Your task to perform on an android device: Is it going to rain this weekend? Image 0: 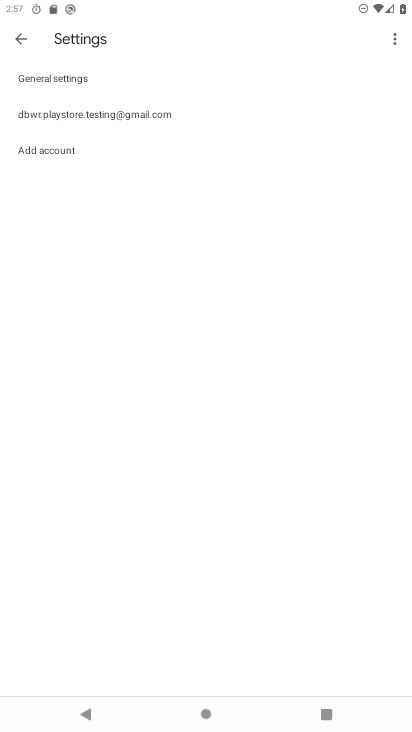
Step 0: press home button
Your task to perform on an android device: Is it going to rain this weekend? Image 1: 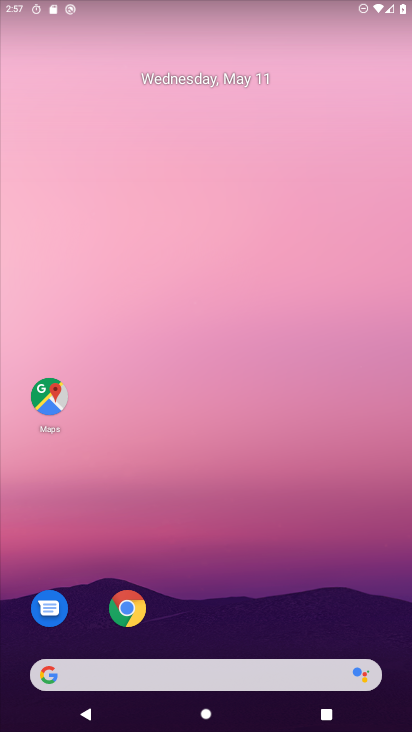
Step 1: task complete